Your task to perform on an android device: find snoozed emails in the gmail app Image 0: 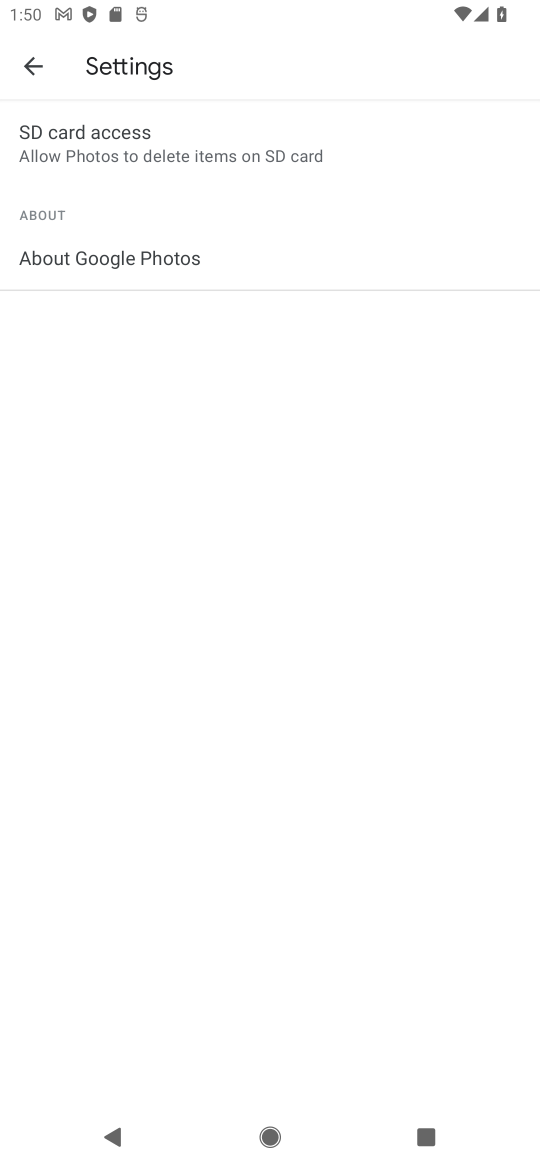
Step 0: press home button
Your task to perform on an android device: find snoozed emails in the gmail app Image 1: 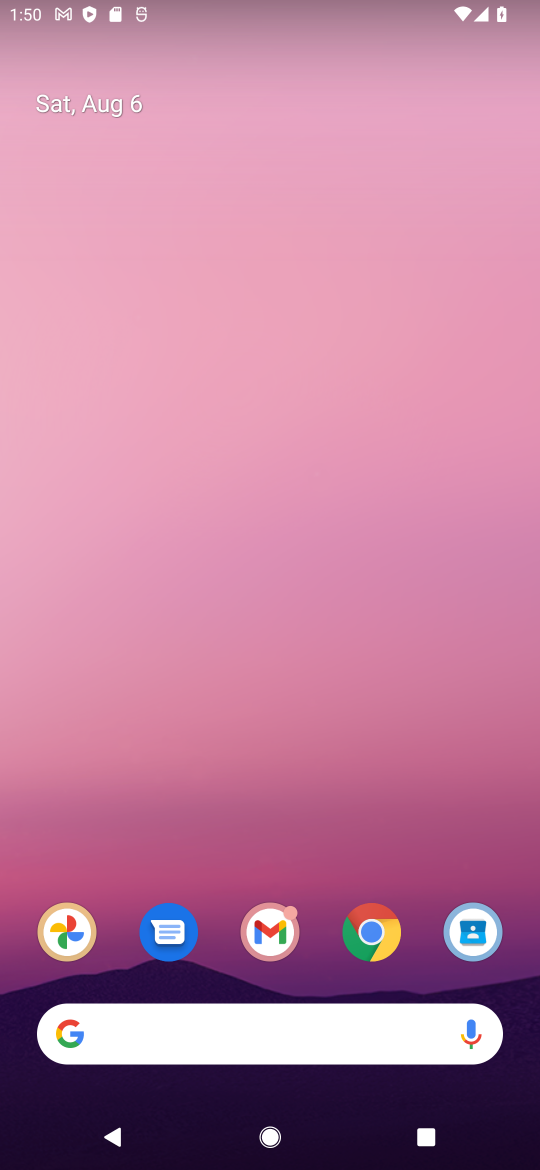
Step 1: drag from (324, 968) to (356, 71)
Your task to perform on an android device: find snoozed emails in the gmail app Image 2: 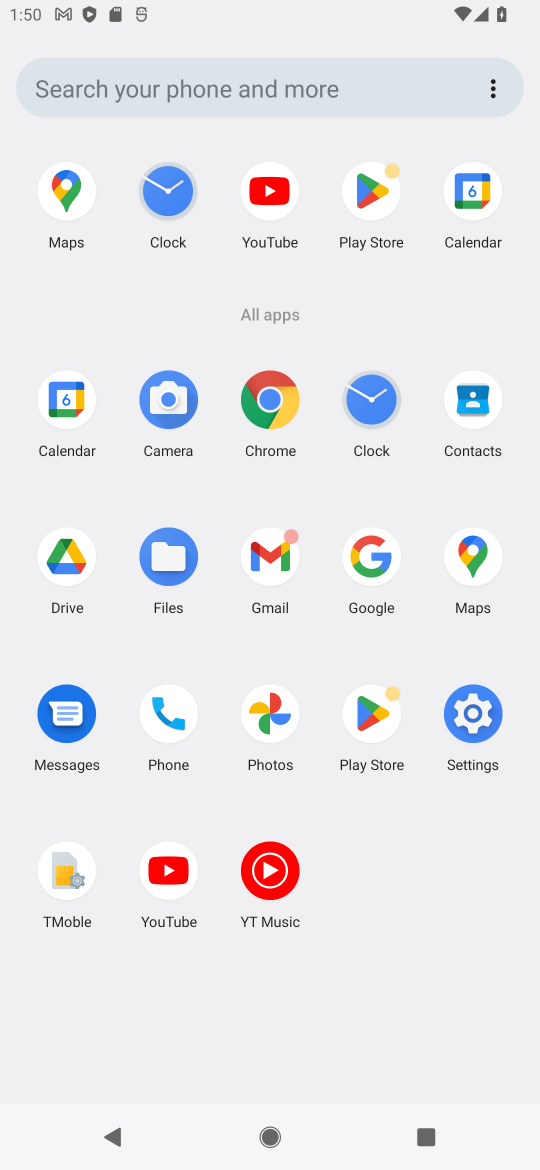
Step 2: click (263, 539)
Your task to perform on an android device: find snoozed emails in the gmail app Image 3: 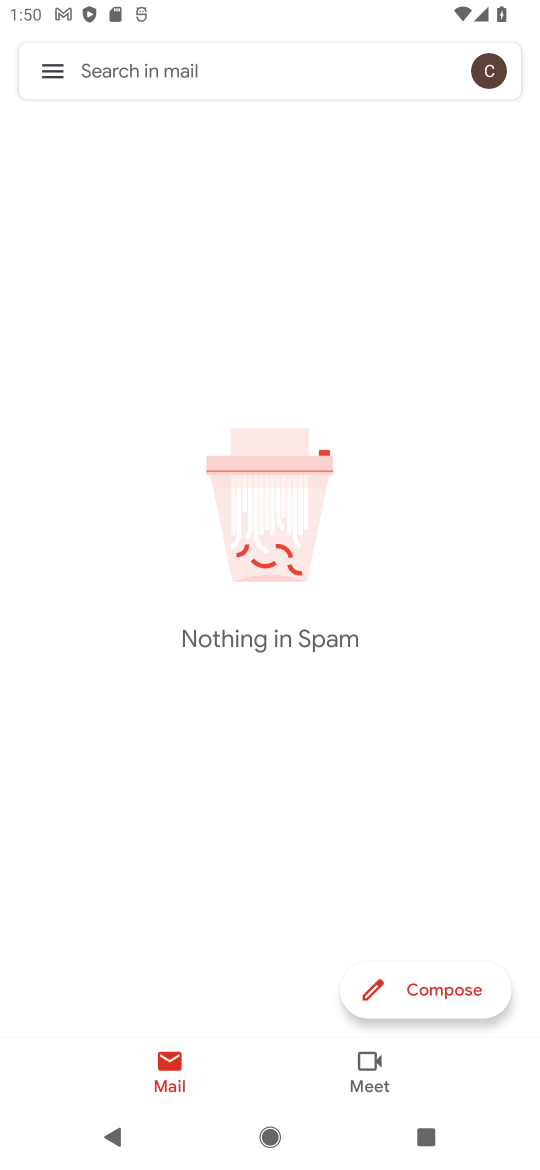
Step 3: click (57, 68)
Your task to perform on an android device: find snoozed emails in the gmail app Image 4: 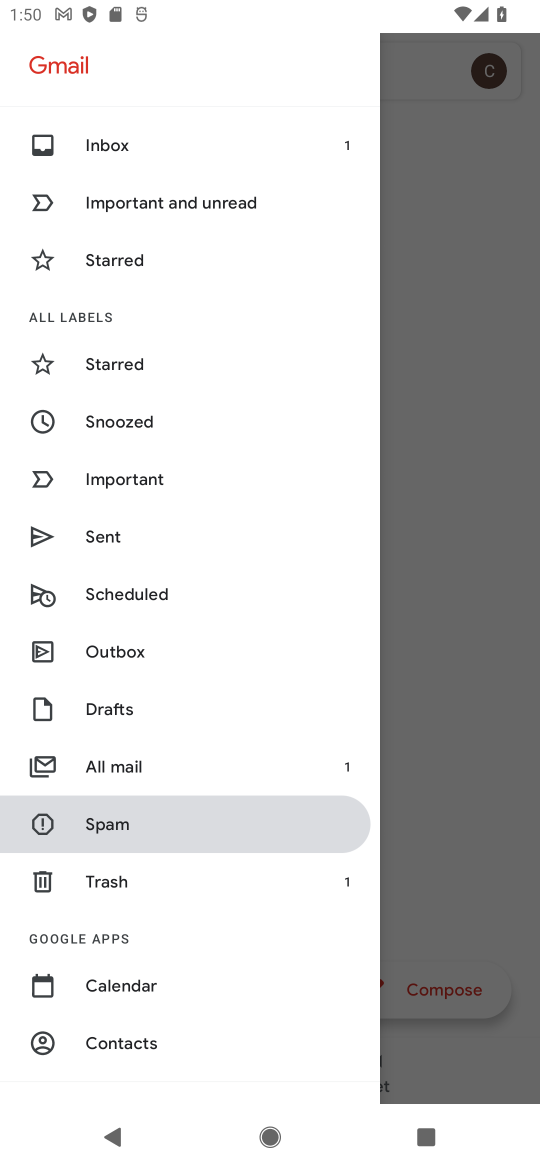
Step 4: click (132, 413)
Your task to perform on an android device: find snoozed emails in the gmail app Image 5: 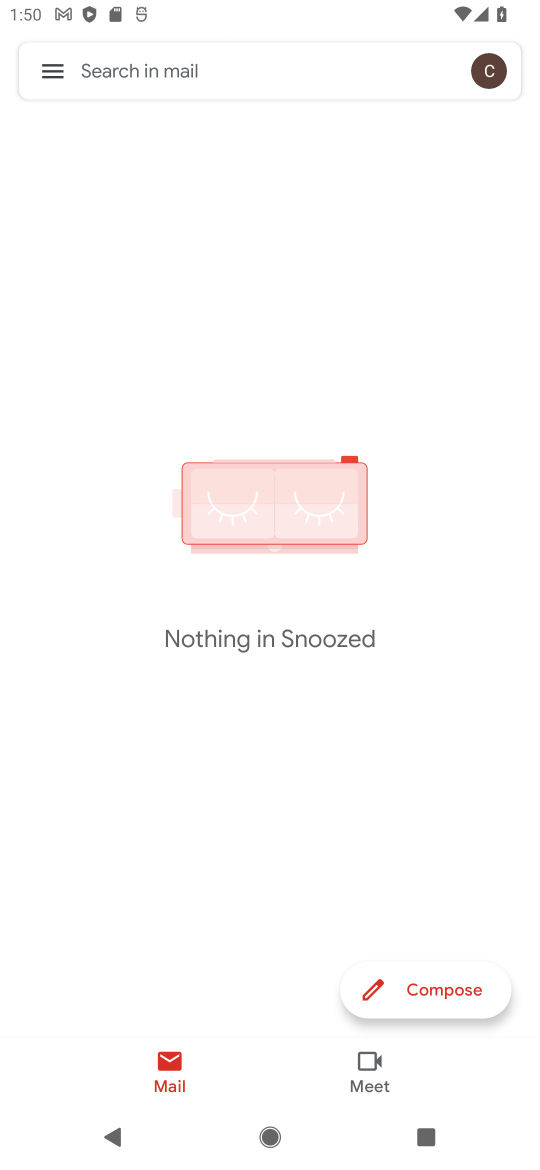
Step 5: task complete